Your task to perform on an android device: Open Youtube and go to "Your channel" Image 0: 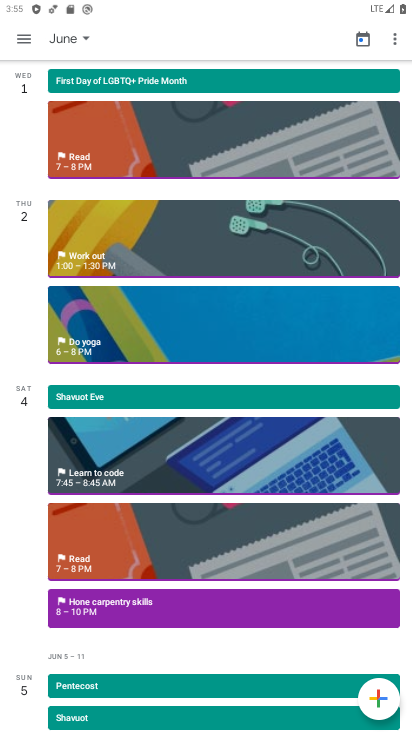
Step 0: press home button
Your task to perform on an android device: Open Youtube and go to "Your channel" Image 1: 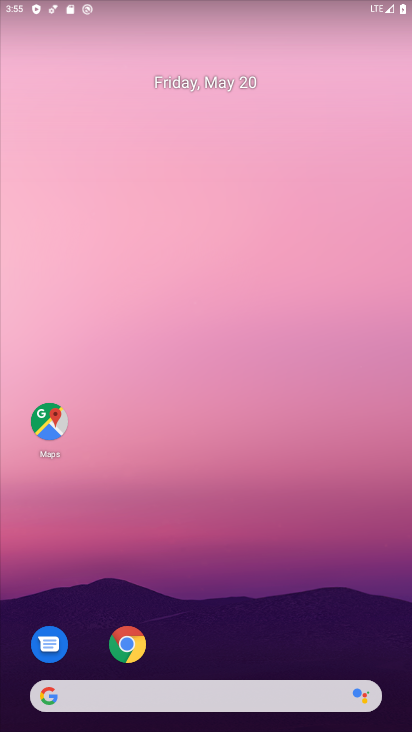
Step 1: drag from (341, 707) to (267, 217)
Your task to perform on an android device: Open Youtube and go to "Your channel" Image 2: 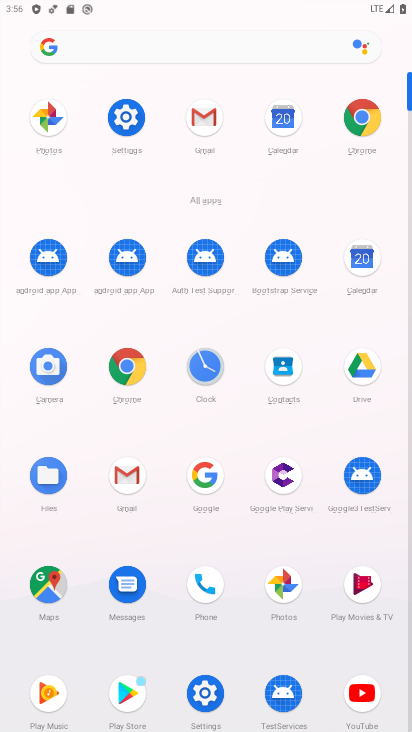
Step 2: click (363, 700)
Your task to perform on an android device: Open Youtube and go to "Your channel" Image 3: 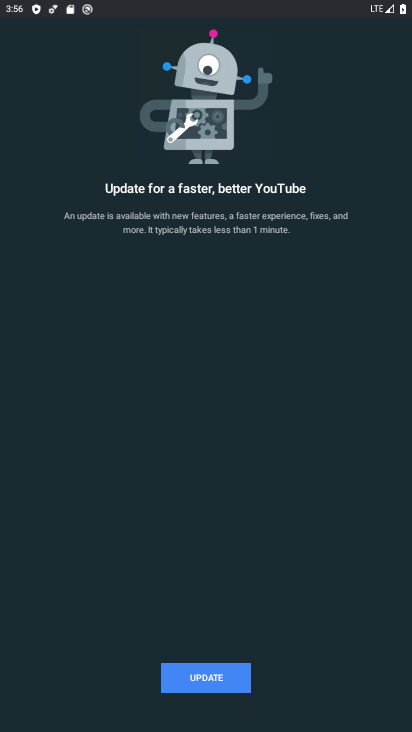
Step 3: click (217, 682)
Your task to perform on an android device: Open Youtube and go to "Your channel" Image 4: 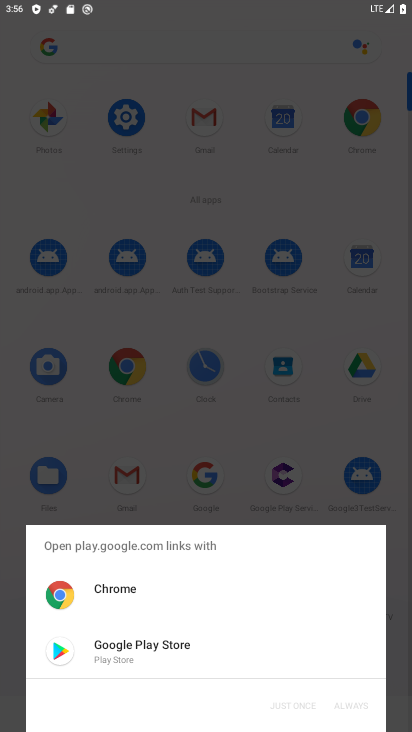
Step 4: click (191, 648)
Your task to perform on an android device: Open Youtube and go to "Your channel" Image 5: 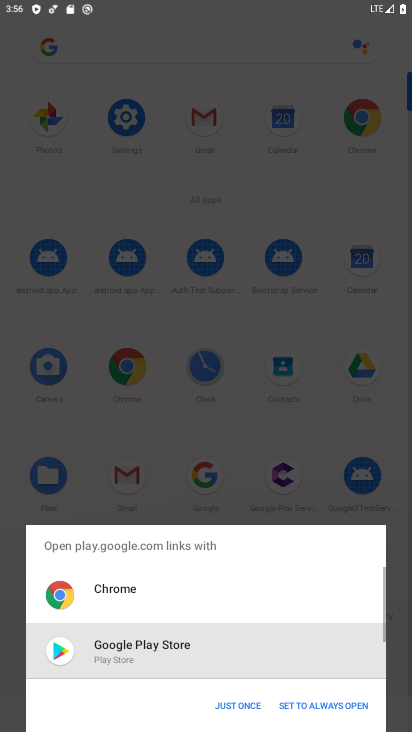
Step 5: click (233, 707)
Your task to perform on an android device: Open Youtube and go to "Your channel" Image 6: 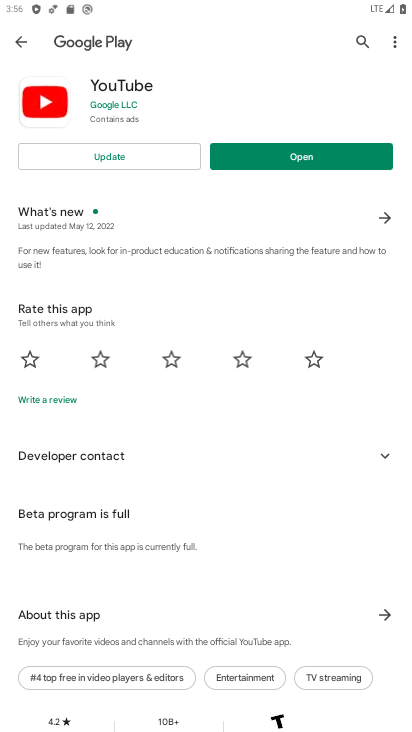
Step 6: click (111, 150)
Your task to perform on an android device: Open Youtube and go to "Your channel" Image 7: 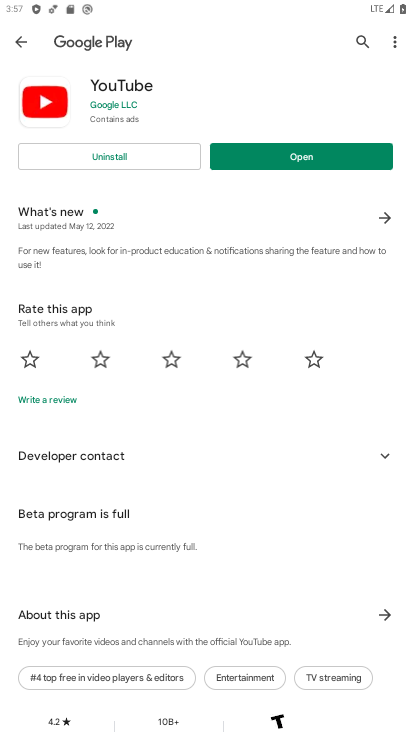
Step 7: click (287, 165)
Your task to perform on an android device: Open Youtube and go to "Your channel" Image 8: 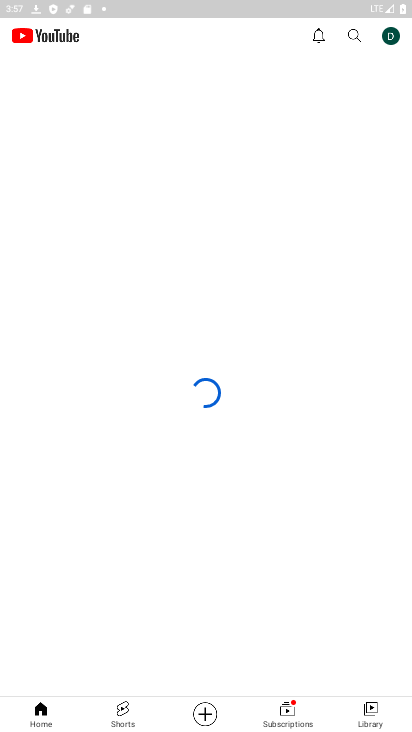
Step 8: click (384, 40)
Your task to perform on an android device: Open Youtube and go to "Your channel" Image 9: 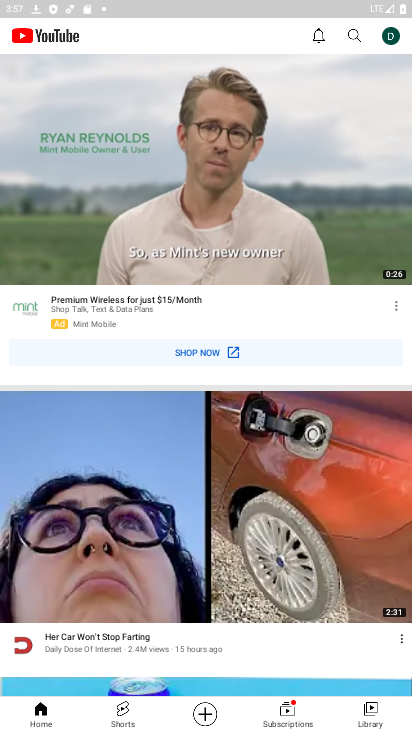
Step 9: click (385, 36)
Your task to perform on an android device: Open Youtube and go to "Your channel" Image 10: 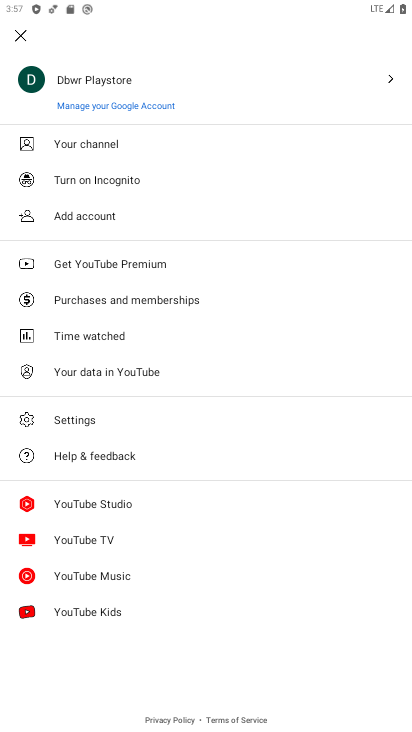
Step 10: click (81, 144)
Your task to perform on an android device: Open Youtube and go to "Your channel" Image 11: 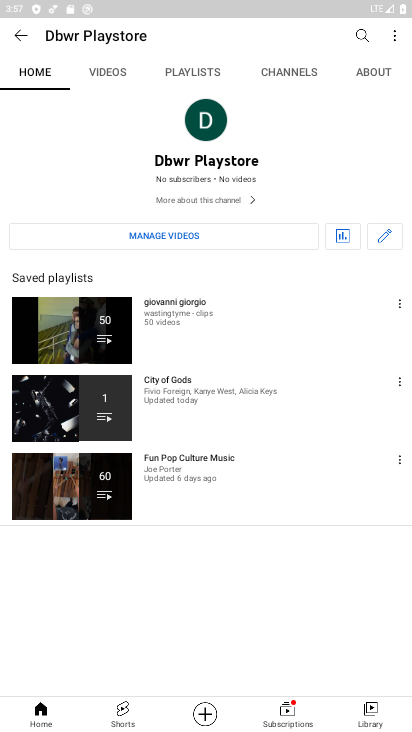
Step 11: task complete